Your task to perform on an android device: Open ESPN.com Image 0: 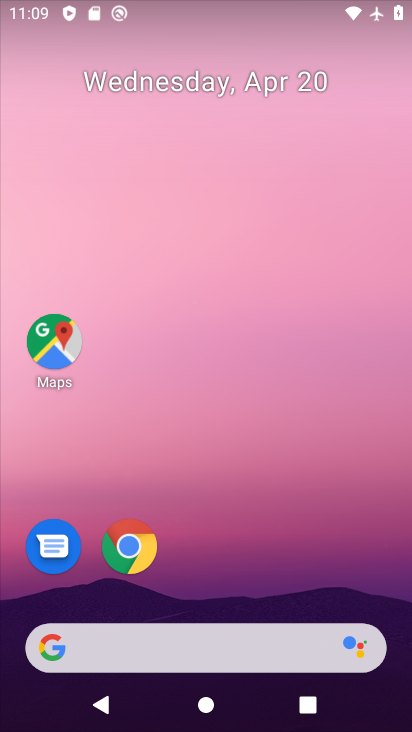
Step 0: drag from (165, 652) to (345, 79)
Your task to perform on an android device: Open ESPN.com Image 1: 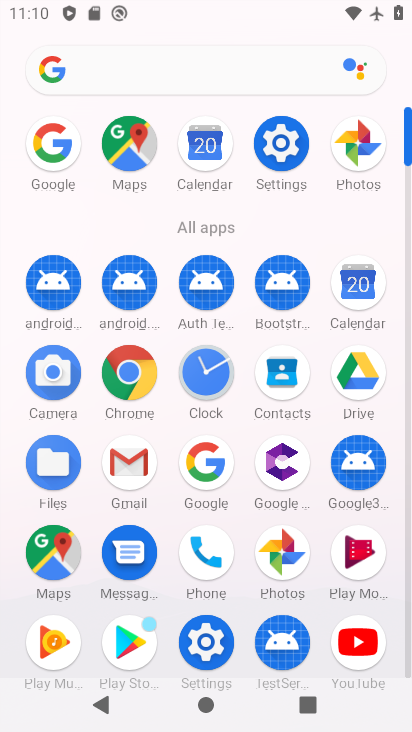
Step 1: click (124, 387)
Your task to perform on an android device: Open ESPN.com Image 2: 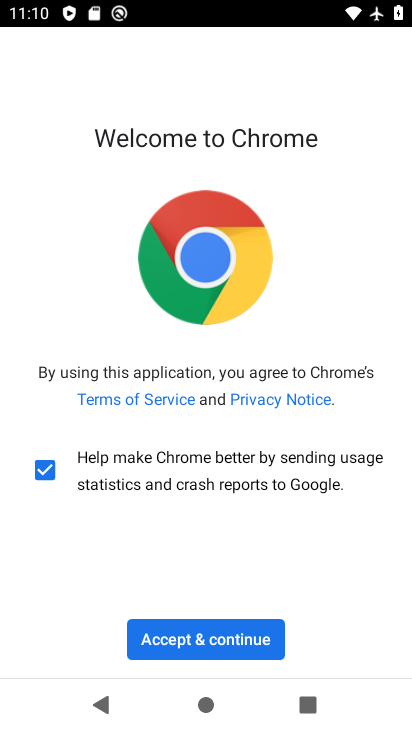
Step 2: click (224, 639)
Your task to perform on an android device: Open ESPN.com Image 3: 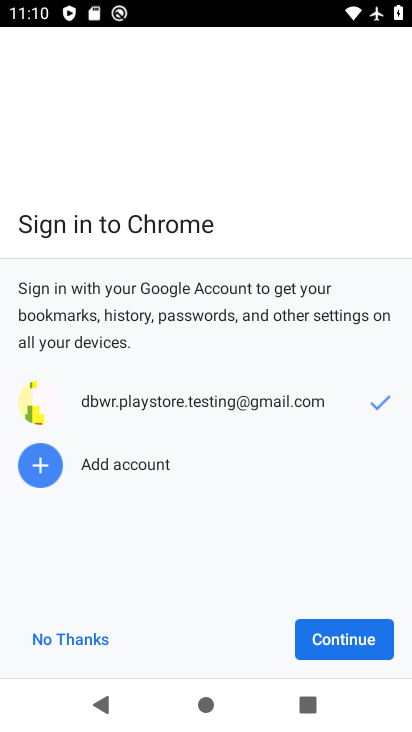
Step 3: click (336, 627)
Your task to perform on an android device: Open ESPN.com Image 4: 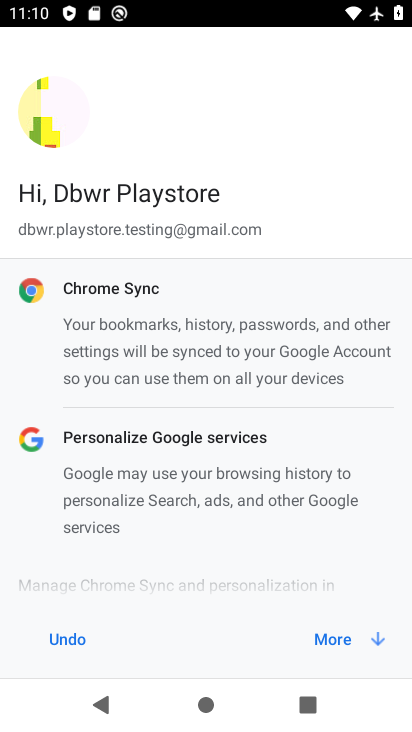
Step 4: click (332, 639)
Your task to perform on an android device: Open ESPN.com Image 5: 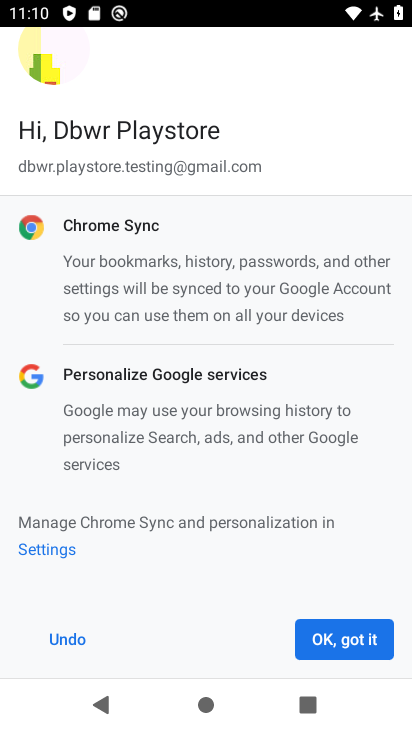
Step 5: click (331, 640)
Your task to perform on an android device: Open ESPN.com Image 6: 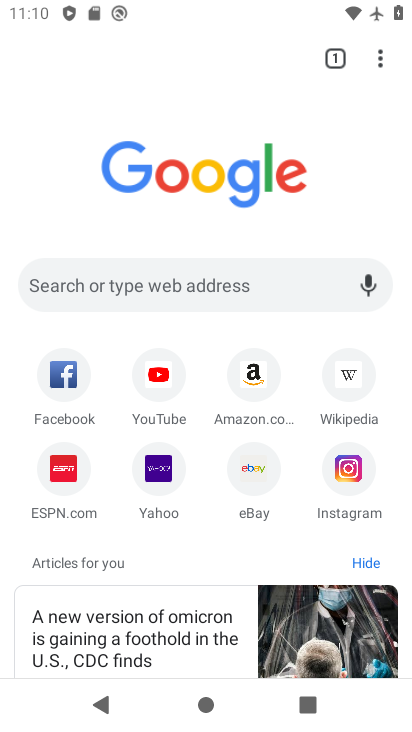
Step 6: click (66, 471)
Your task to perform on an android device: Open ESPN.com Image 7: 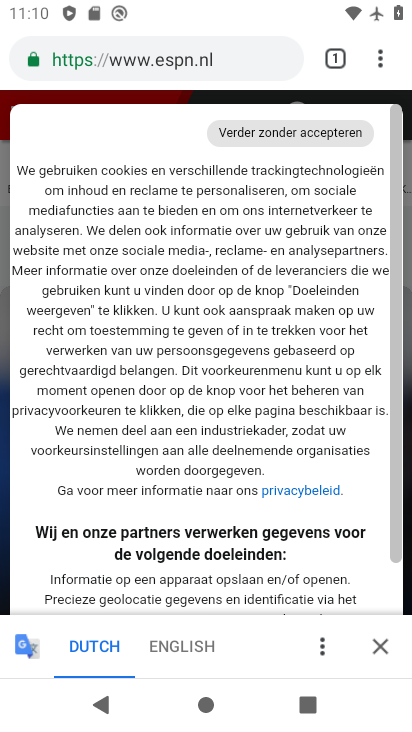
Step 7: task complete